Your task to perform on an android device: toggle notifications settings in the gmail app Image 0: 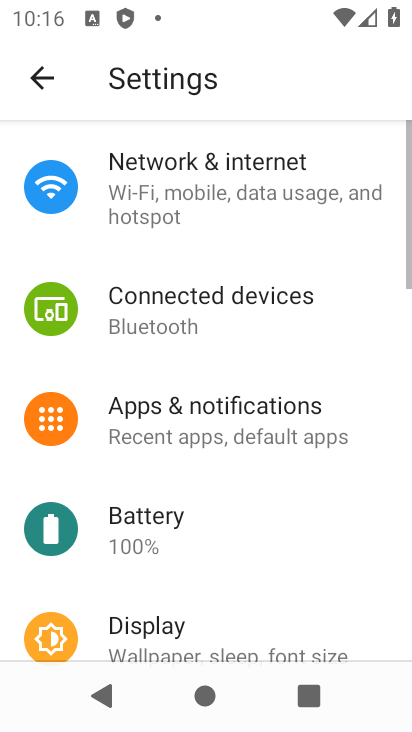
Step 0: press home button
Your task to perform on an android device: toggle notifications settings in the gmail app Image 1: 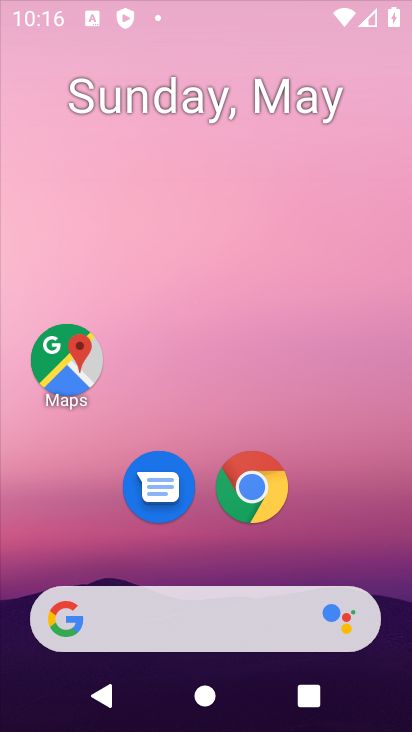
Step 1: drag from (229, 633) to (364, 172)
Your task to perform on an android device: toggle notifications settings in the gmail app Image 2: 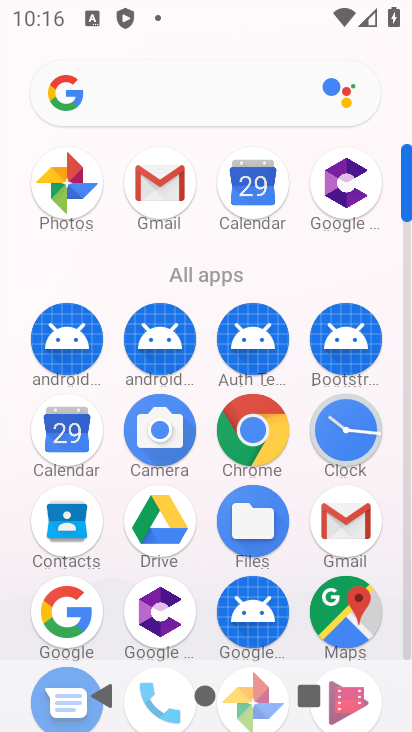
Step 2: drag from (271, 501) to (384, 187)
Your task to perform on an android device: toggle notifications settings in the gmail app Image 3: 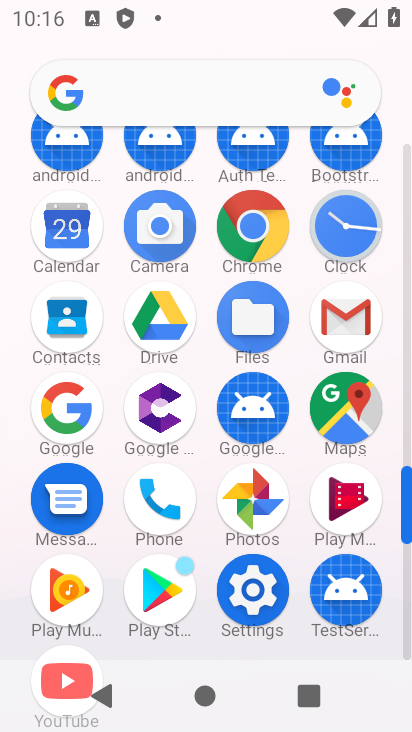
Step 3: click (352, 315)
Your task to perform on an android device: toggle notifications settings in the gmail app Image 4: 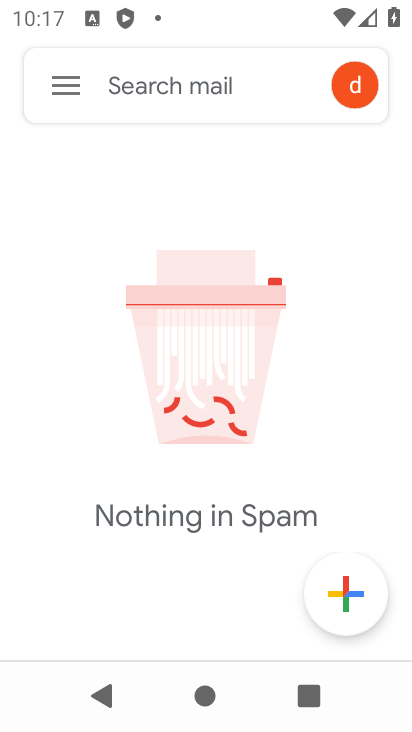
Step 4: click (50, 85)
Your task to perform on an android device: toggle notifications settings in the gmail app Image 5: 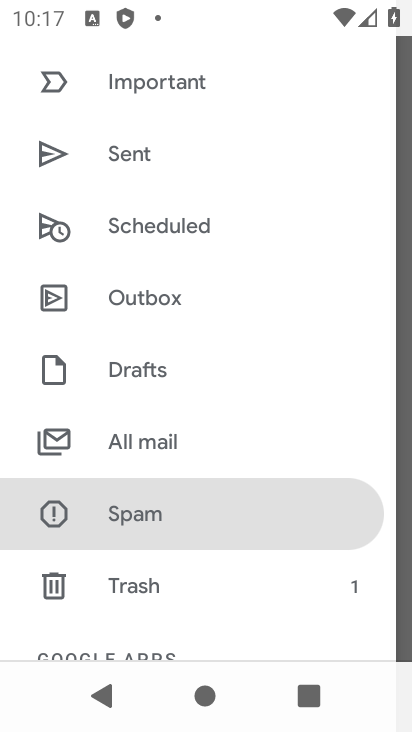
Step 5: drag from (171, 602) to (164, 316)
Your task to perform on an android device: toggle notifications settings in the gmail app Image 6: 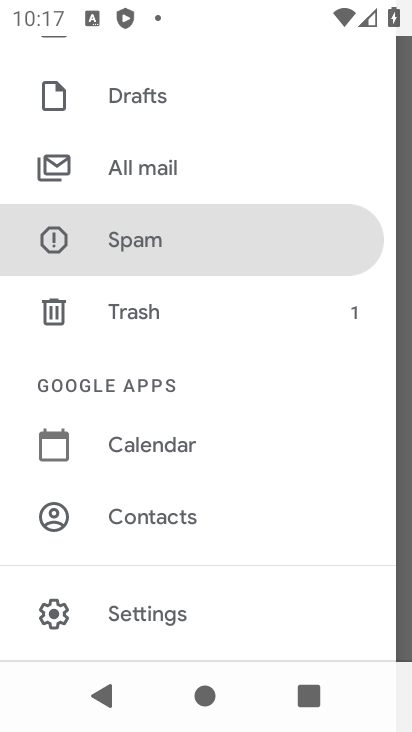
Step 6: drag from (198, 519) to (216, 291)
Your task to perform on an android device: toggle notifications settings in the gmail app Image 7: 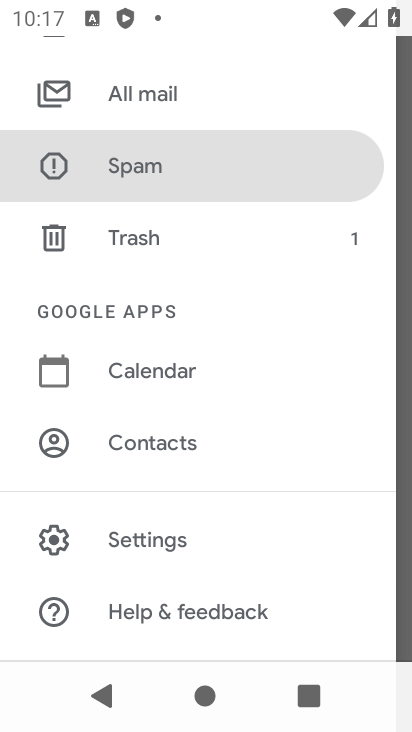
Step 7: click (174, 535)
Your task to perform on an android device: toggle notifications settings in the gmail app Image 8: 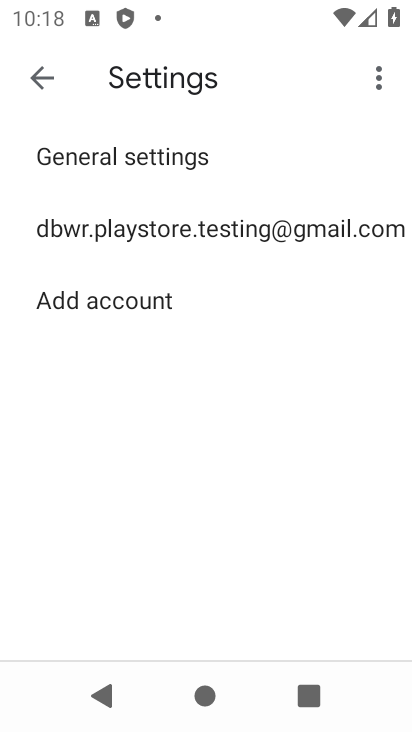
Step 8: click (211, 167)
Your task to perform on an android device: toggle notifications settings in the gmail app Image 9: 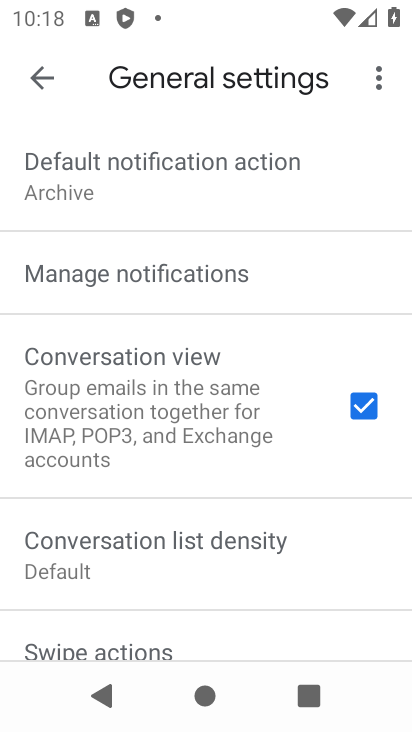
Step 9: click (186, 269)
Your task to perform on an android device: toggle notifications settings in the gmail app Image 10: 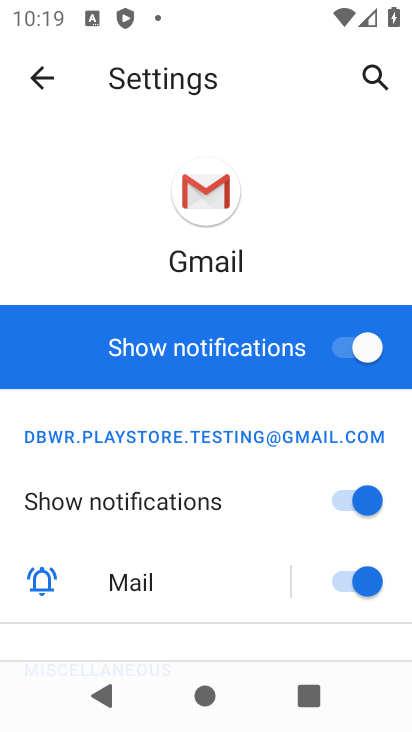
Step 10: click (332, 356)
Your task to perform on an android device: toggle notifications settings in the gmail app Image 11: 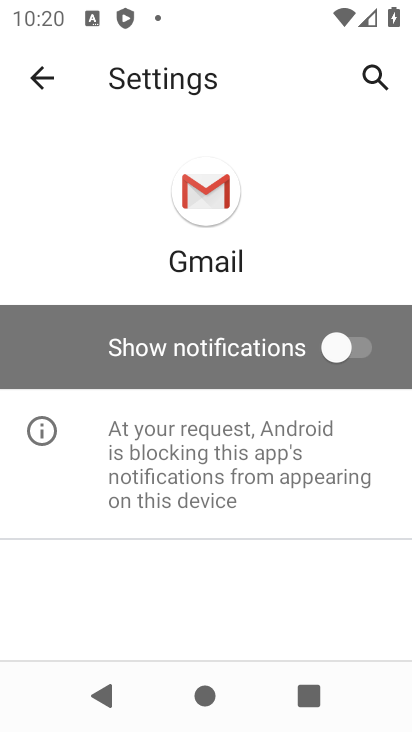
Step 11: task complete